Your task to perform on an android device: uninstall "Speedtest by Ookla" Image 0: 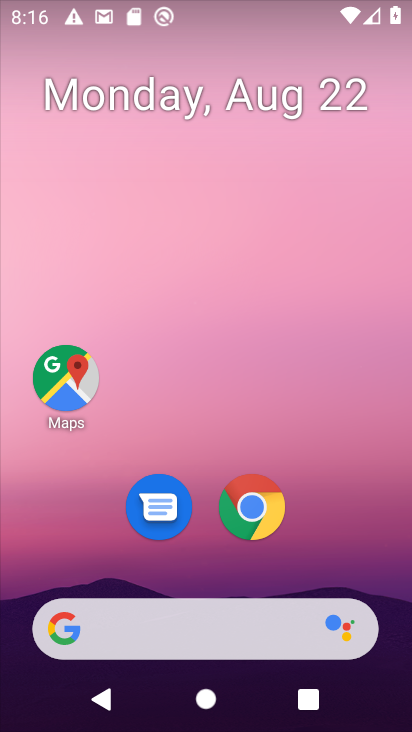
Step 0: drag from (180, 549) to (171, 210)
Your task to perform on an android device: uninstall "Speedtest by Ookla" Image 1: 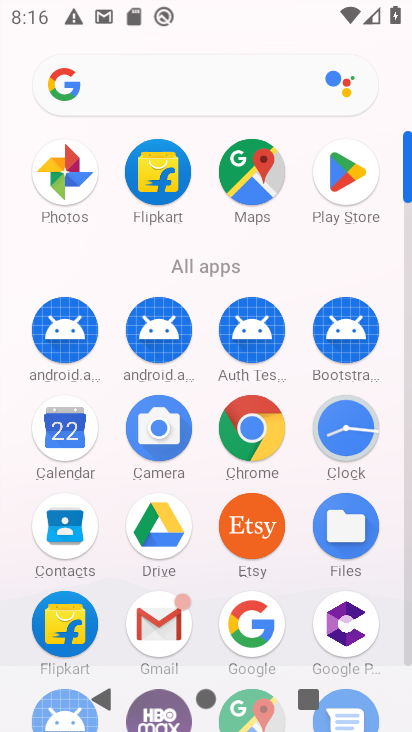
Step 1: click (350, 154)
Your task to perform on an android device: uninstall "Speedtest by Ookla" Image 2: 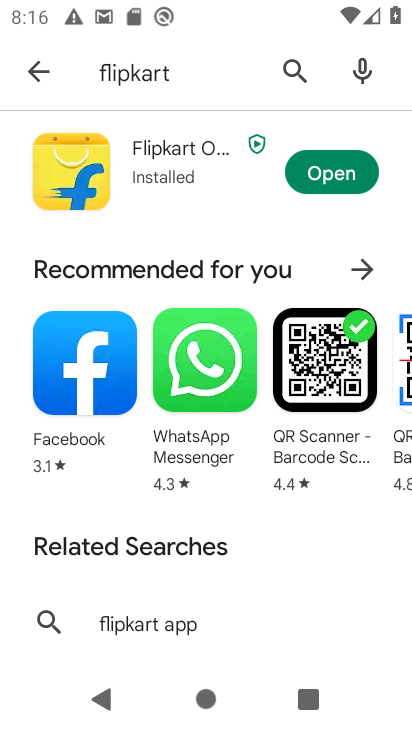
Step 2: click (168, 76)
Your task to perform on an android device: uninstall "Speedtest by Ookla" Image 3: 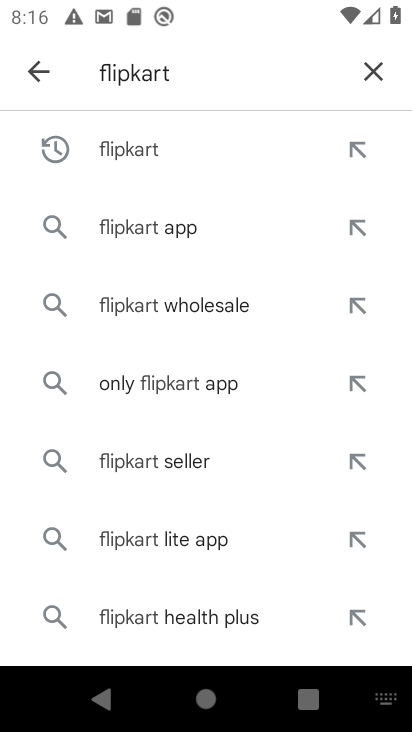
Step 3: click (372, 70)
Your task to perform on an android device: uninstall "Speedtest by Ookla" Image 4: 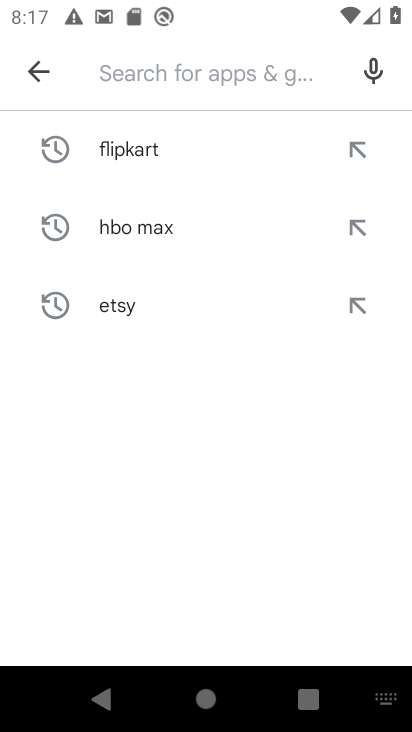
Step 4: type "speedtest By ookla"
Your task to perform on an android device: uninstall "Speedtest by Ookla" Image 5: 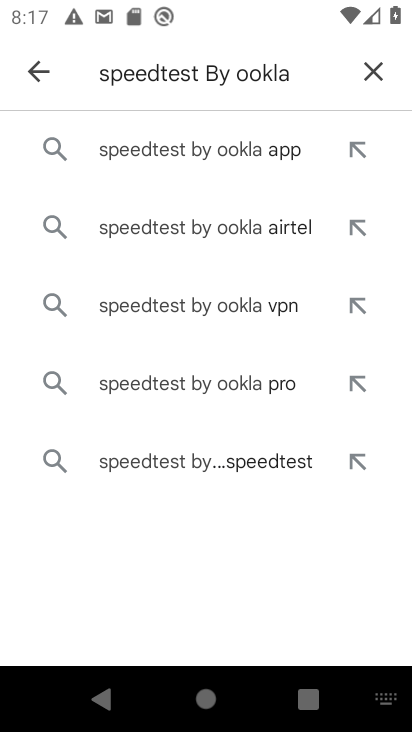
Step 5: click (137, 149)
Your task to perform on an android device: uninstall "Speedtest by Ookla" Image 6: 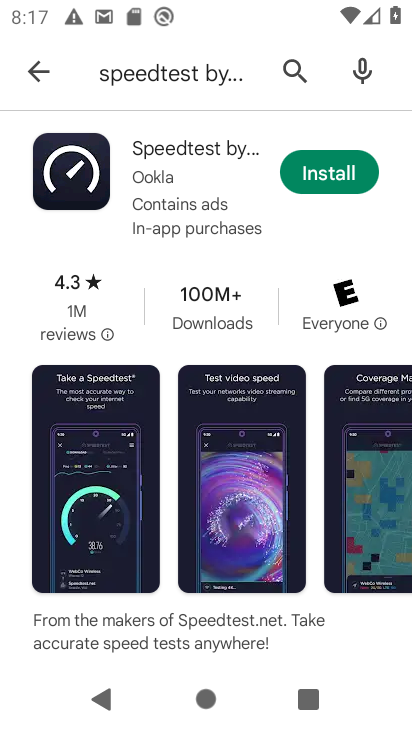
Step 6: task complete